Your task to perform on an android device: Open settings Image 0: 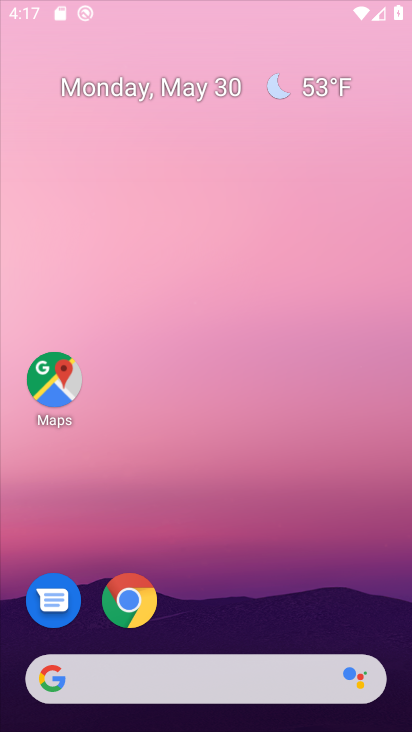
Step 0: drag from (275, 486) to (286, 31)
Your task to perform on an android device: Open settings Image 1: 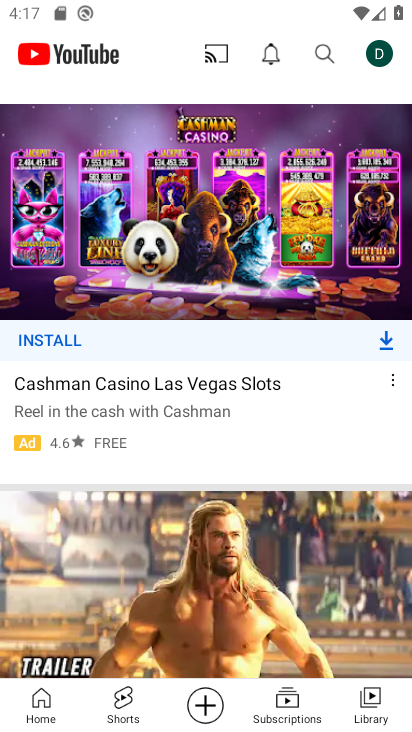
Step 1: press home button
Your task to perform on an android device: Open settings Image 2: 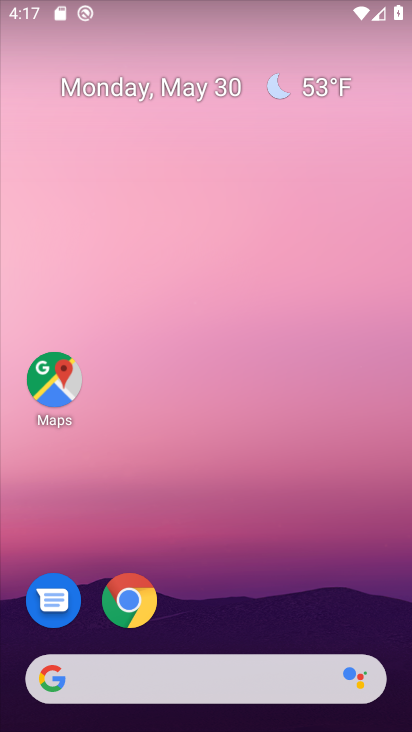
Step 2: drag from (319, 591) to (281, 64)
Your task to perform on an android device: Open settings Image 3: 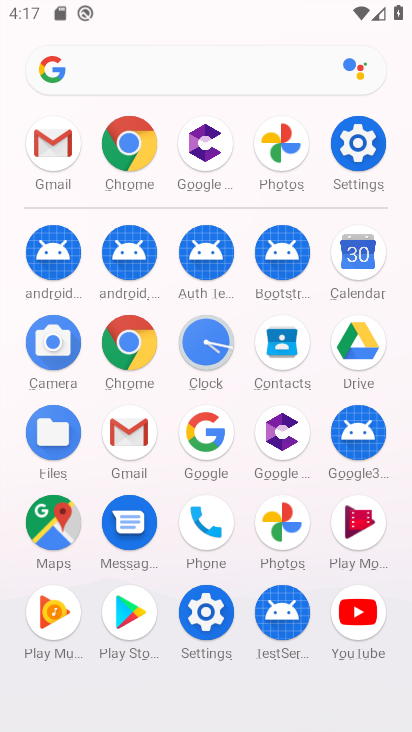
Step 3: click (364, 158)
Your task to perform on an android device: Open settings Image 4: 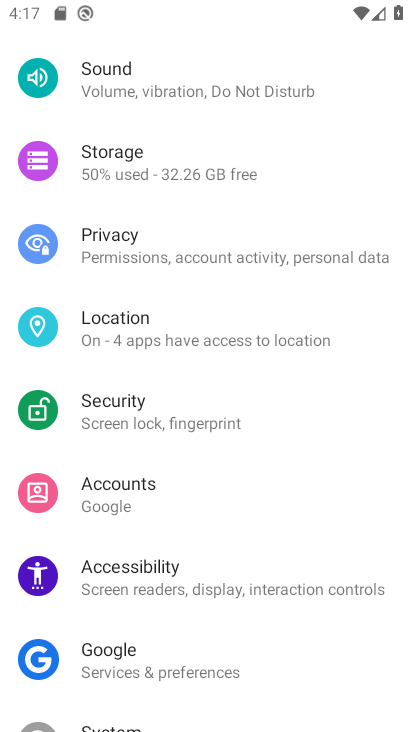
Step 4: task complete